Your task to perform on an android device: clear history in the chrome app Image 0: 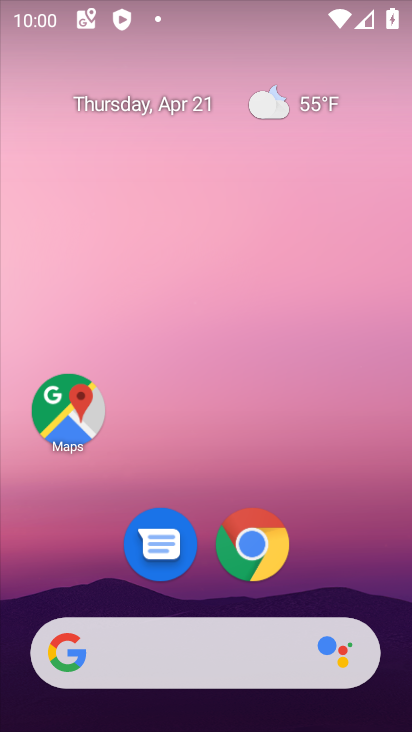
Step 0: drag from (346, 460) to (306, 9)
Your task to perform on an android device: clear history in the chrome app Image 1: 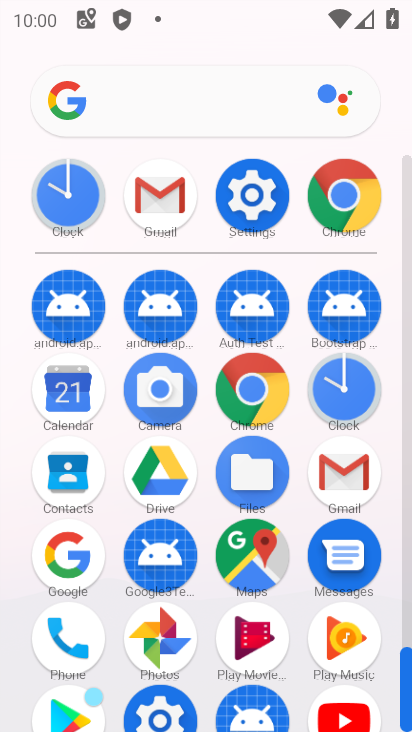
Step 1: drag from (22, 538) to (10, 289)
Your task to perform on an android device: clear history in the chrome app Image 2: 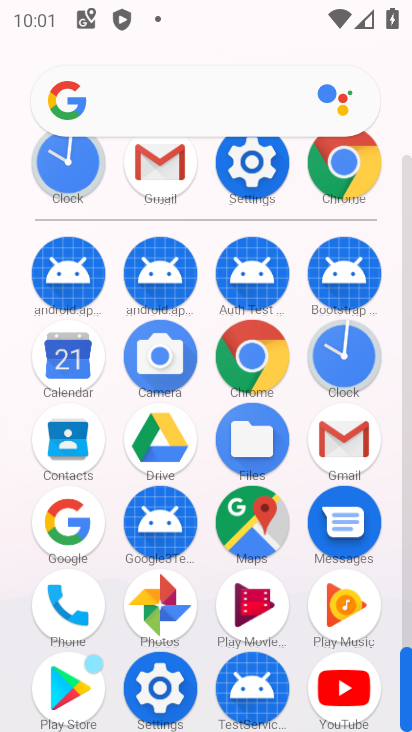
Step 2: click (251, 355)
Your task to perform on an android device: clear history in the chrome app Image 3: 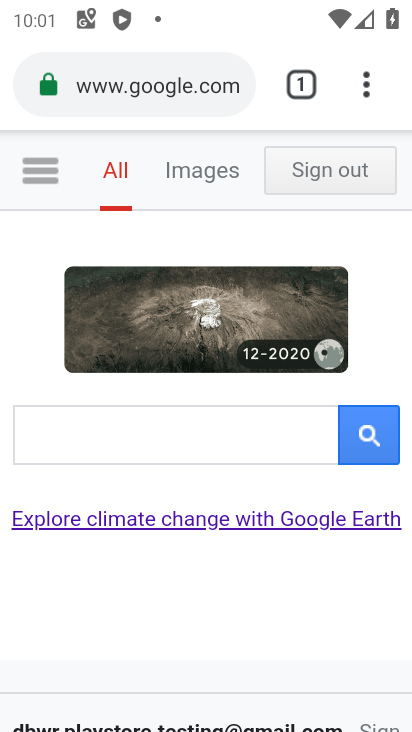
Step 3: click (366, 87)
Your task to perform on an android device: clear history in the chrome app Image 4: 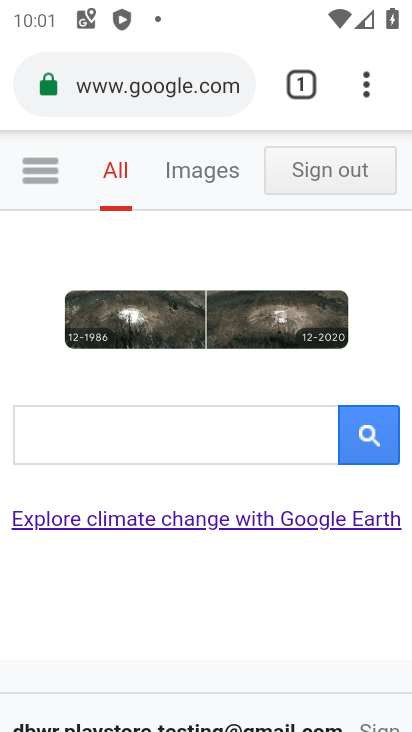
Step 4: drag from (360, 80) to (102, 563)
Your task to perform on an android device: clear history in the chrome app Image 5: 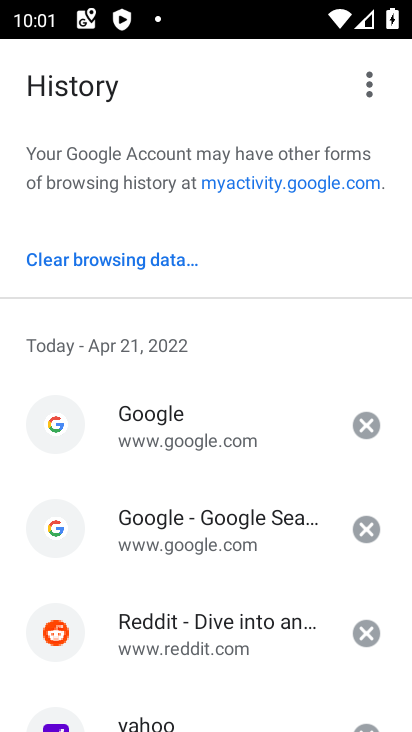
Step 5: click (165, 265)
Your task to perform on an android device: clear history in the chrome app Image 6: 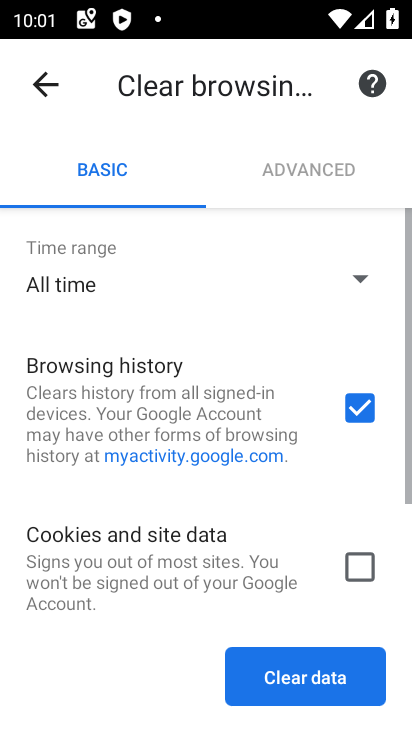
Step 6: click (324, 649)
Your task to perform on an android device: clear history in the chrome app Image 7: 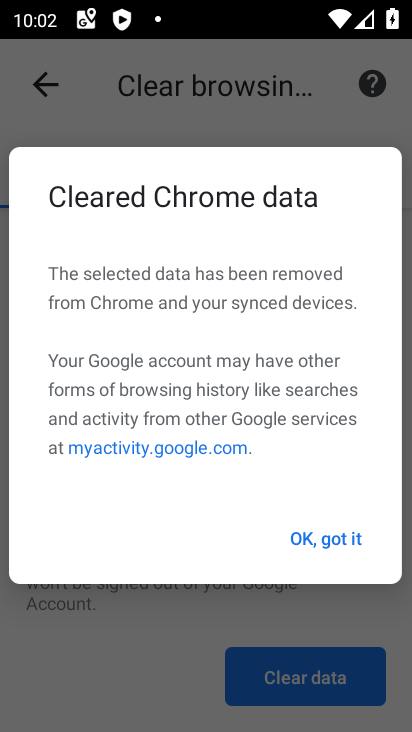
Step 7: click (321, 533)
Your task to perform on an android device: clear history in the chrome app Image 8: 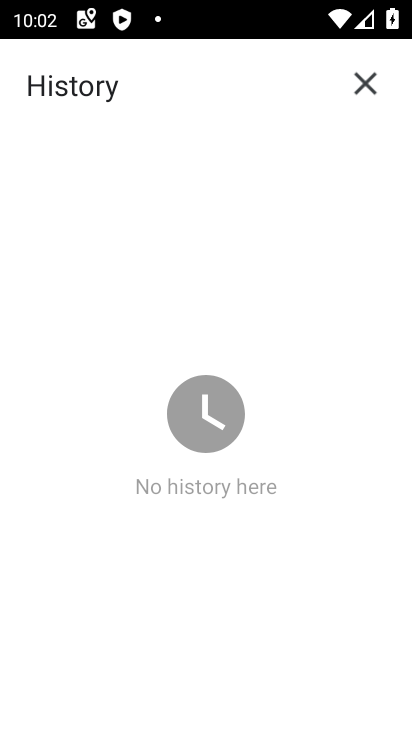
Step 8: task complete